Your task to perform on an android device: Go to Google maps Image 0: 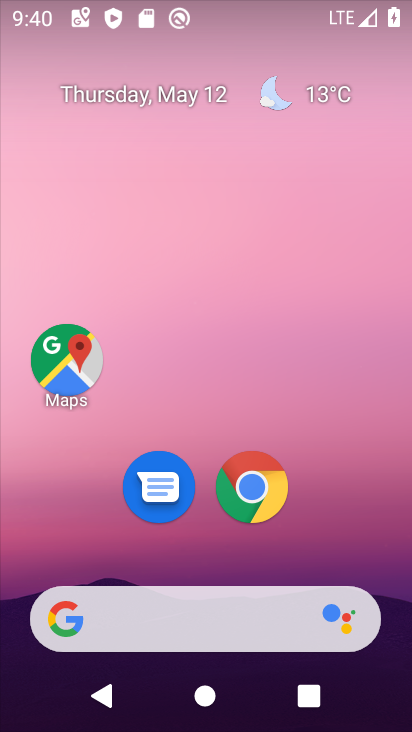
Step 0: click (66, 364)
Your task to perform on an android device: Go to Google maps Image 1: 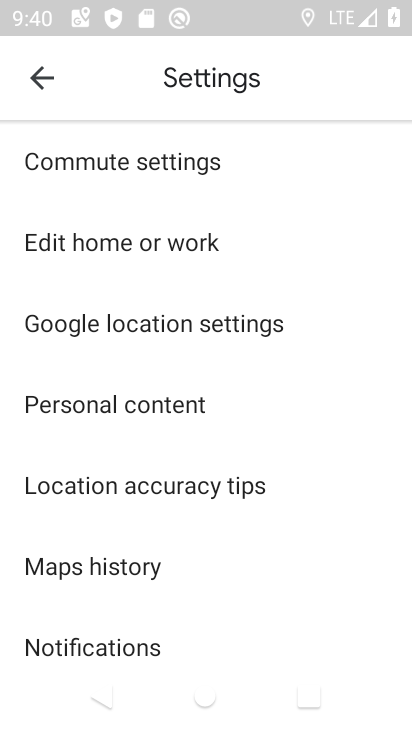
Step 1: task complete